Your task to perform on an android device: manage bookmarks in the chrome app Image 0: 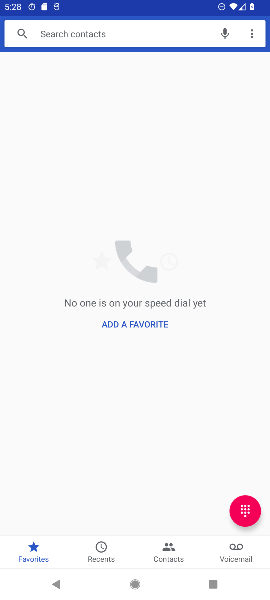
Step 0: press back button
Your task to perform on an android device: manage bookmarks in the chrome app Image 1: 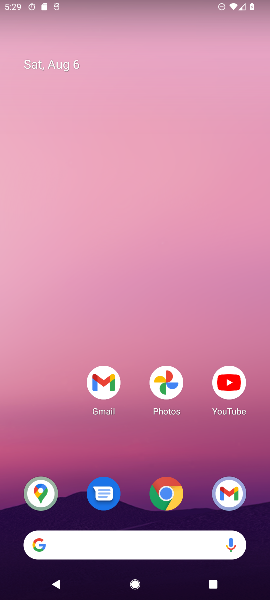
Step 1: drag from (125, 397) to (89, 145)
Your task to perform on an android device: manage bookmarks in the chrome app Image 2: 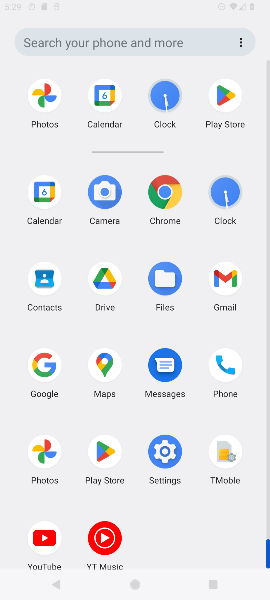
Step 2: click (95, 178)
Your task to perform on an android device: manage bookmarks in the chrome app Image 3: 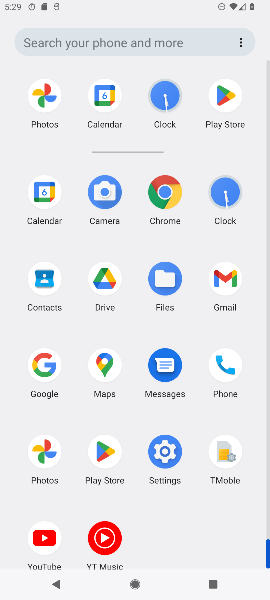
Step 3: drag from (171, 466) to (162, 218)
Your task to perform on an android device: manage bookmarks in the chrome app Image 4: 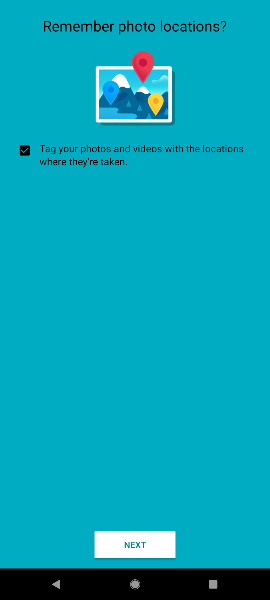
Step 4: press back button
Your task to perform on an android device: manage bookmarks in the chrome app Image 5: 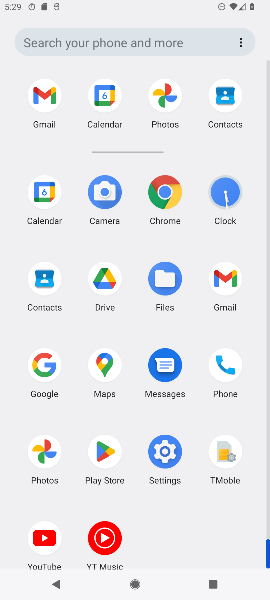
Step 5: click (162, 192)
Your task to perform on an android device: manage bookmarks in the chrome app Image 6: 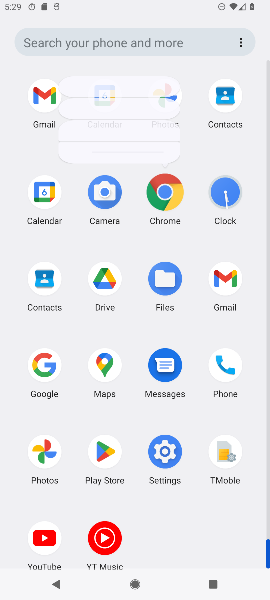
Step 6: click (162, 192)
Your task to perform on an android device: manage bookmarks in the chrome app Image 7: 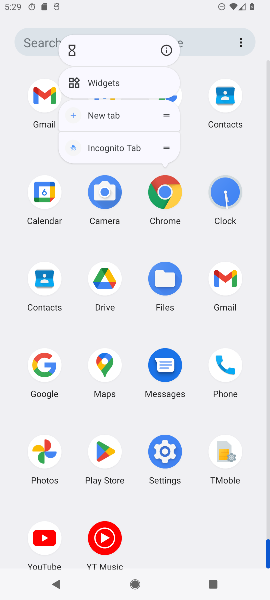
Step 7: click (162, 192)
Your task to perform on an android device: manage bookmarks in the chrome app Image 8: 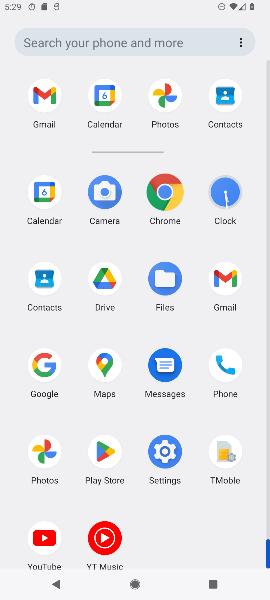
Step 8: click (162, 192)
Your task to perform on an android device: manage bookmarks in the chrome app Image 9: 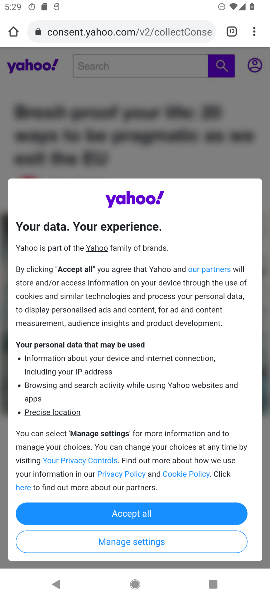
Step 9: click (251, 25)
Your task to perform on an android device: manage bookmarks in the chrome app Image 10: 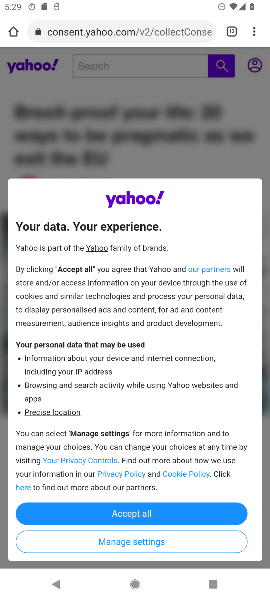
Step 10: click (251, 30)
Your task to perform on an android device: manage bookmarks in the chrome app Image 11: 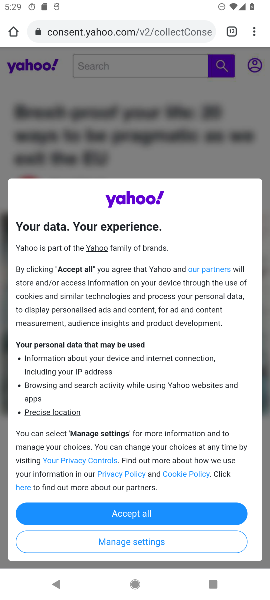
Step 11: drag from (251, 30) to (169, 207)
Your task to perform on an android device: manage bookmarks in the chrome app Image 12: 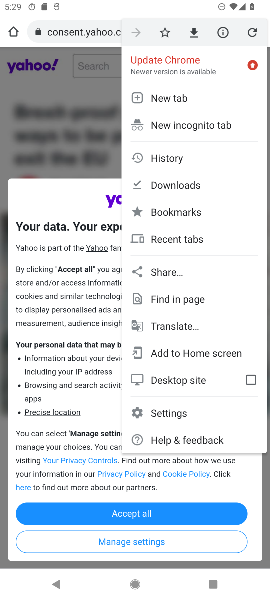
Step 12: click (169, 204)
Your task to perform on an android device: manage bookmarks in the chrome app Image 13: 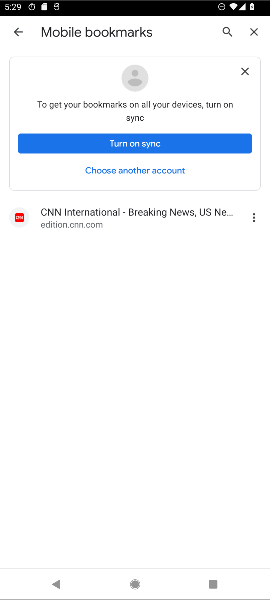
Step 13: click (175, 217)
Your task to perform on an android device: manage bookmarks in the chrome app Image 14: 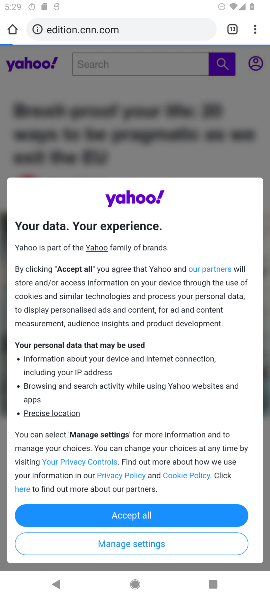
Step 14: click (252, 26)
Your task to perform on an android device: manage bookmarks in the chrome app Image 15: 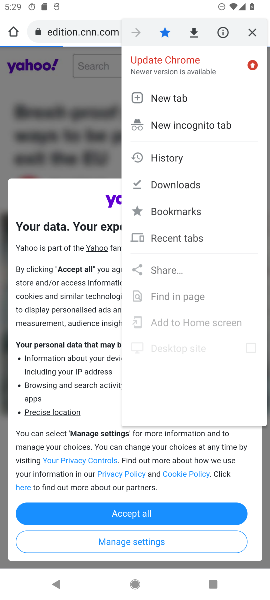
Step 15: task complete